Your task to perform on an android device: check storage Image 0: 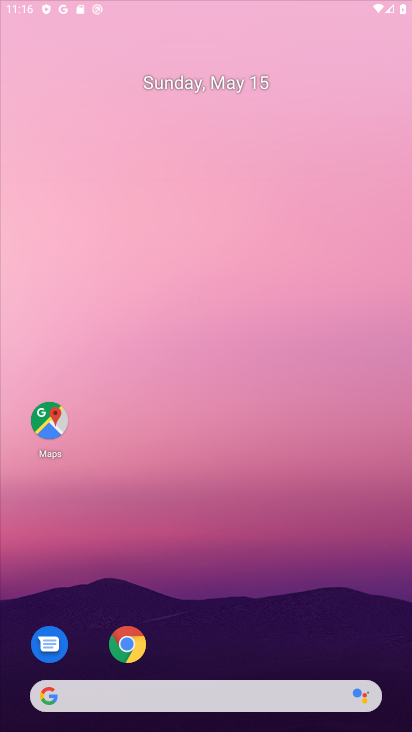
Step 0: drag from (410, 569) to (410, 528)
Your task to perform on an android device: check storage Image 1: 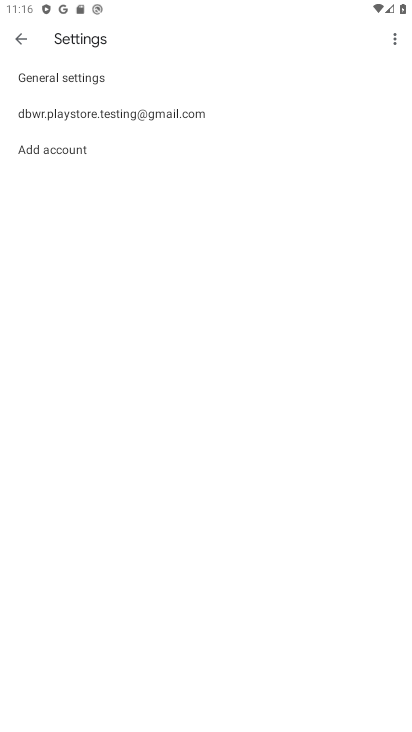
Step 1: press home button
Your task to perform on an android device: check storage Image 2: 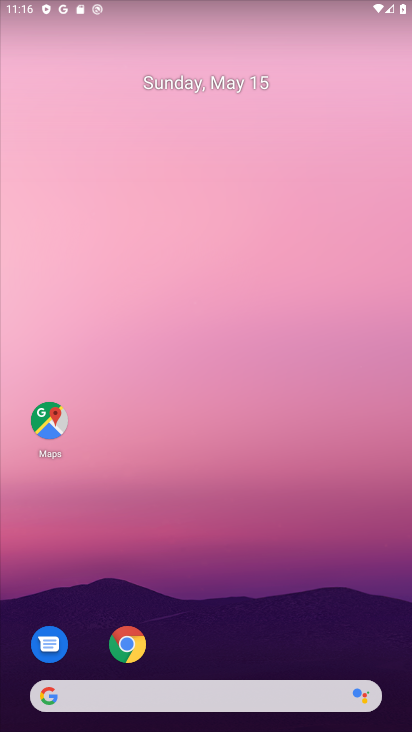
Step 2: drag from (192, 595) to (219, 251)
Your task to perform on an android device: check storage Image 3: 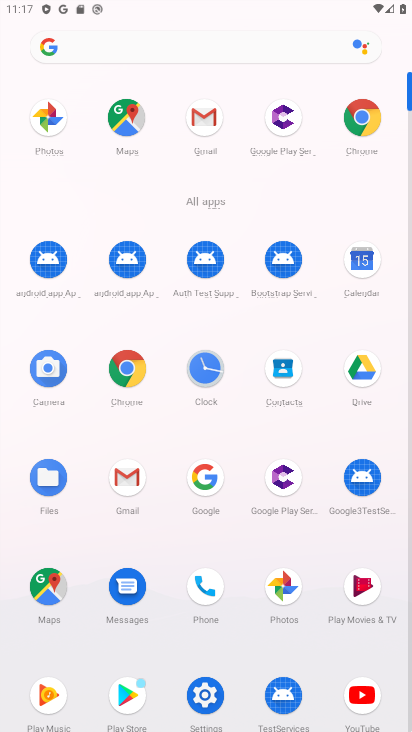
Step 3: click (190, 701)
Your task to perform on an android device: check storage Image 4: 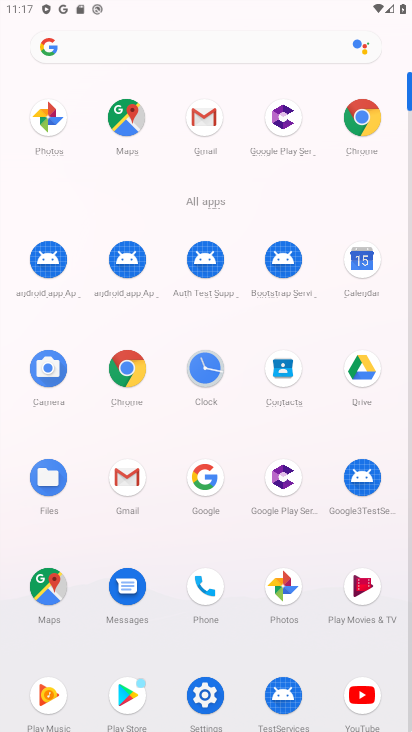
Step 4: click (190, 701)
Your task to perform on an android device: check storage Image 5: 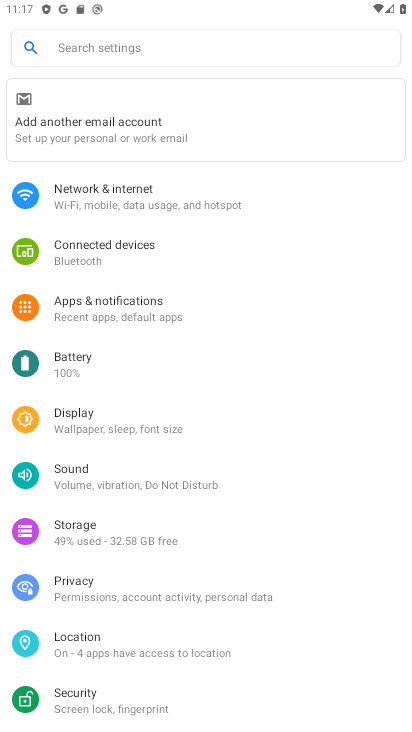
Step 5: click (85, 529)
Your task to perform on an android device: check storage Image 6: 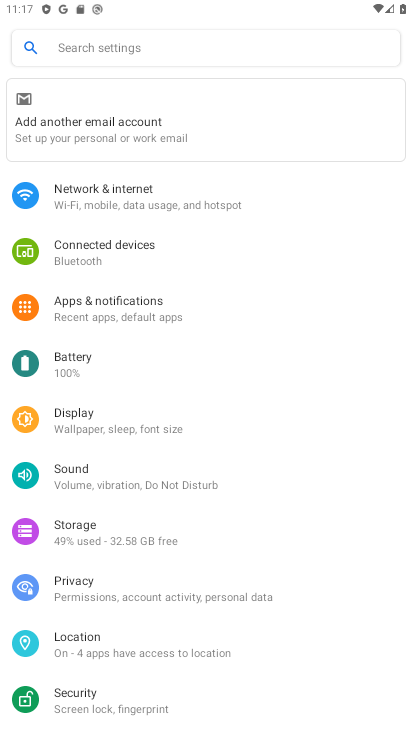
Step 6: click (86, 528)
Your task to perform on an android device: check storage Image 7: 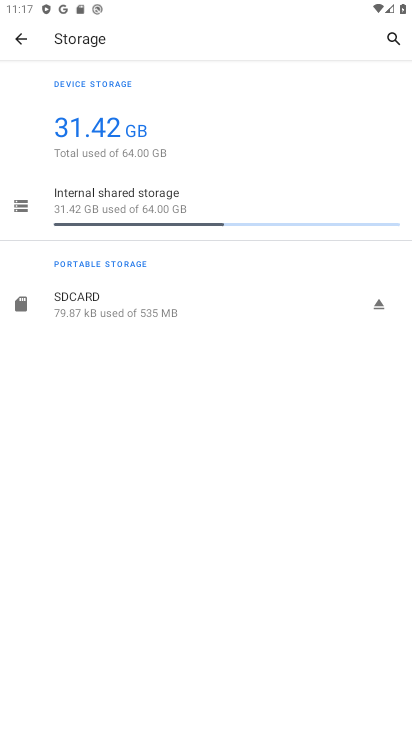
Step 7: click (245, 135)
Your task to perform on an android device: check storage Image 8: 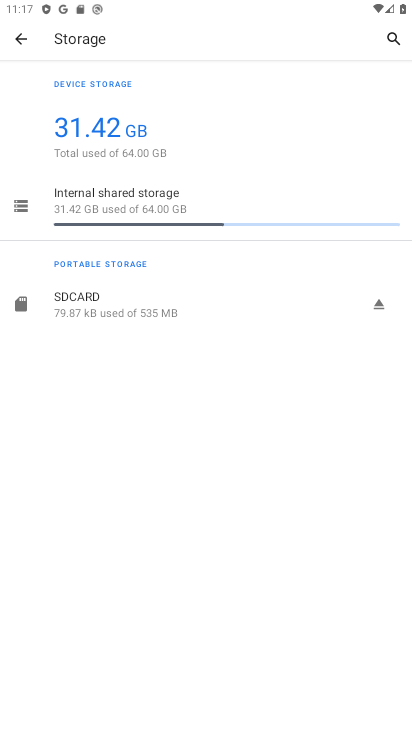
Step 8: task complete